Your task to perform on an android device: What's the weather going to be this weekend? Image 0: 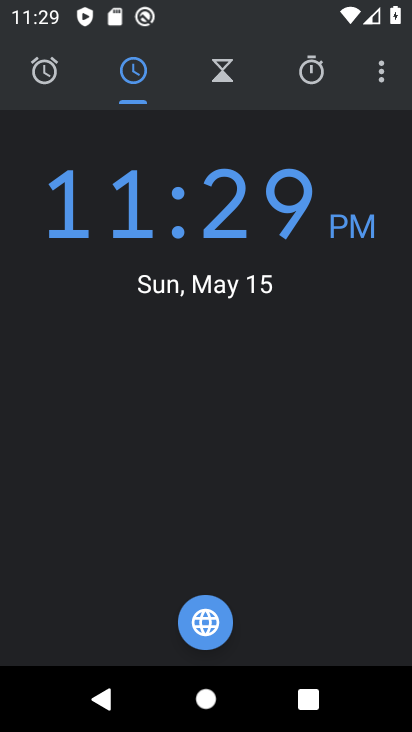
Step 0: press home button
Your task to perform on an android device: What's the weather going to be this weekend? Image 1: 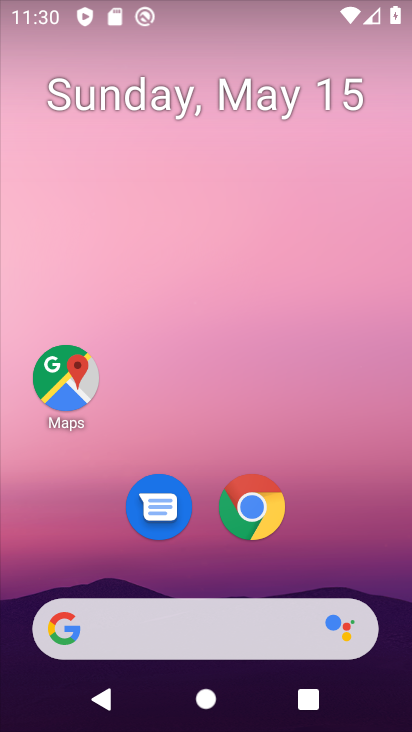
Step 1: click (244, 524)
Your task to perform on an android device: What's the weather going to be this weekend? Image 2: 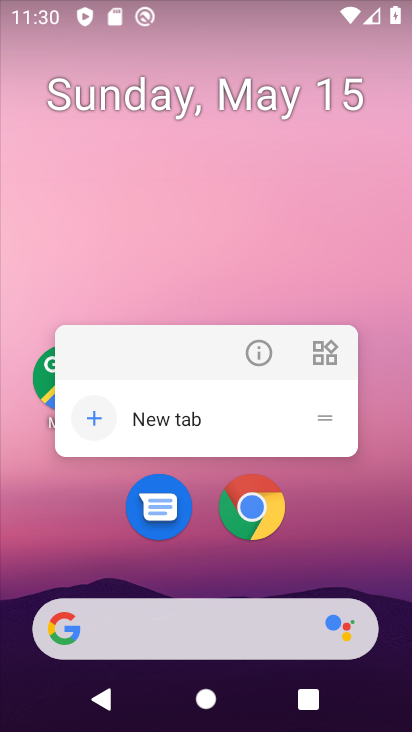
Step 2: click (257, 526)
Your task to perform on an android device: What's the weather going to be this weekend? Image 3: 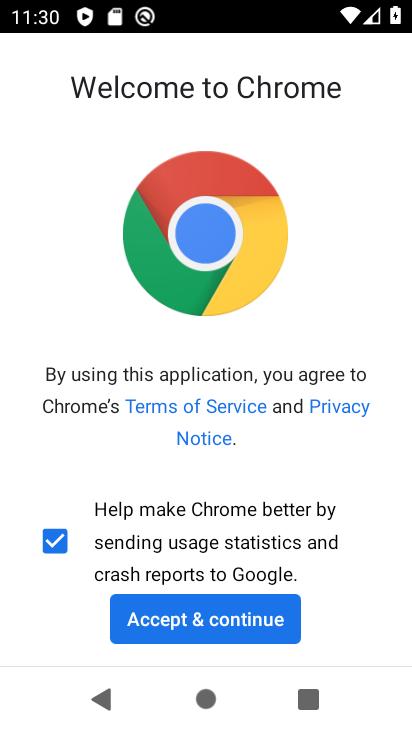
Step 3: click (243, 610)
Your task to perform on an android device: What's the weather going to be this weekend? Image 4: 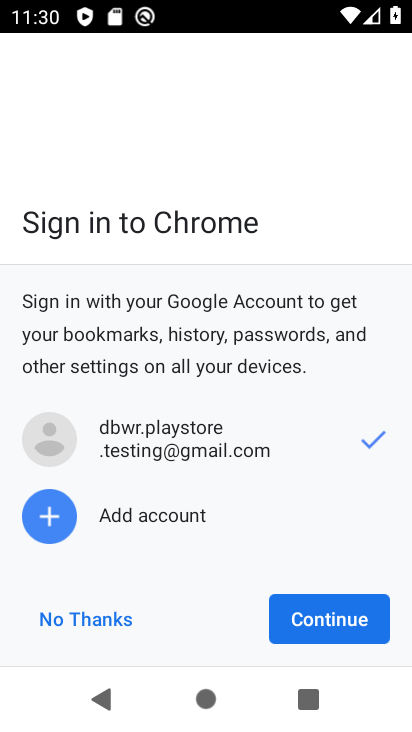
Step 4: click (323, 616)
Your task to perform on an android device: What's the weather going to be this weekend? Image 5: 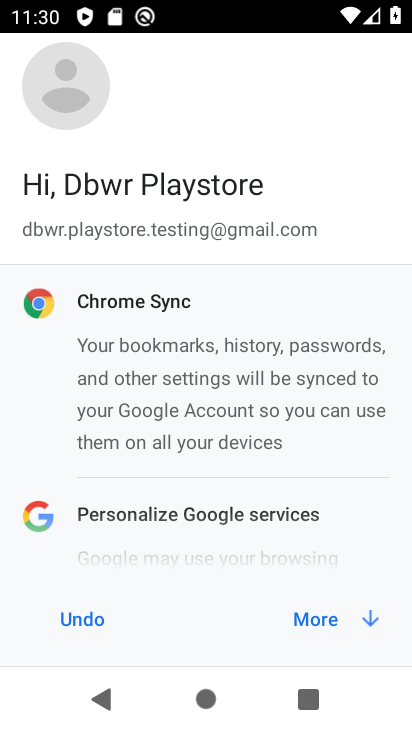
Step 5: click (327, 627)
Your task to perform on an android device: What's the weather going to be this weekend? Image 6: 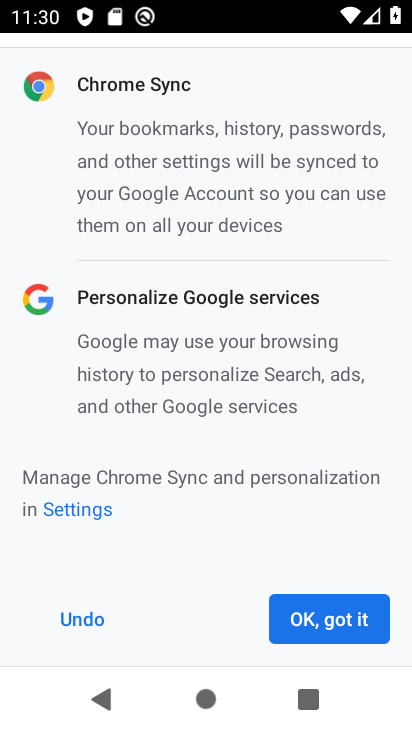
Step 6: click (327, 627)
Your task to perform on an android device: What's the weather going to be this weekend? Image 7: 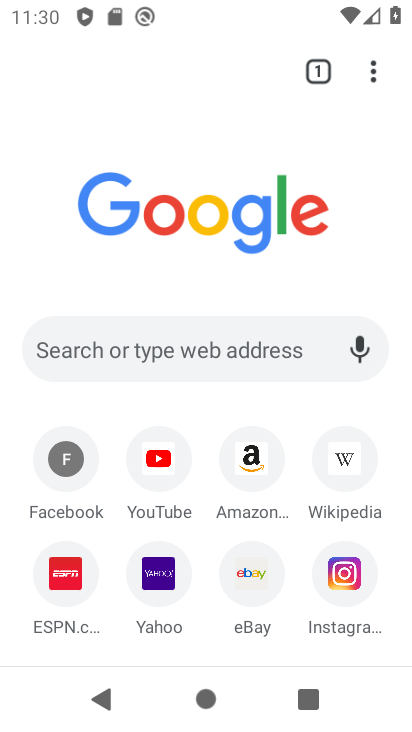
Step 7: click (191, 353)
Your task to perform on an android device: What's the weather going to be this weekend? Image 8: 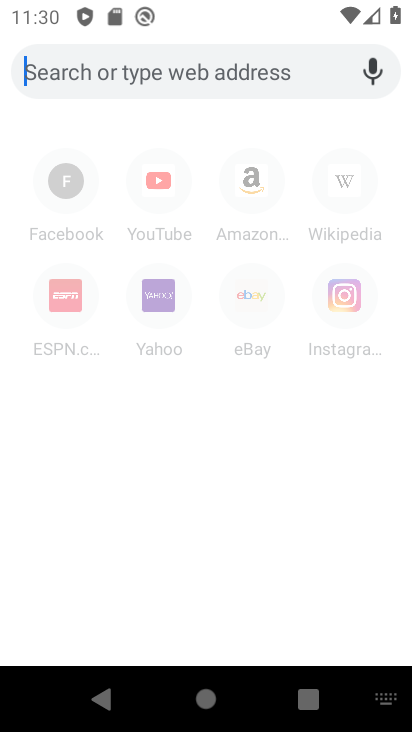
Step 8: type "whats the weather going to be this weekend"
Your task to perform on an android device: What's the weather going to be this weekend? Image 9: 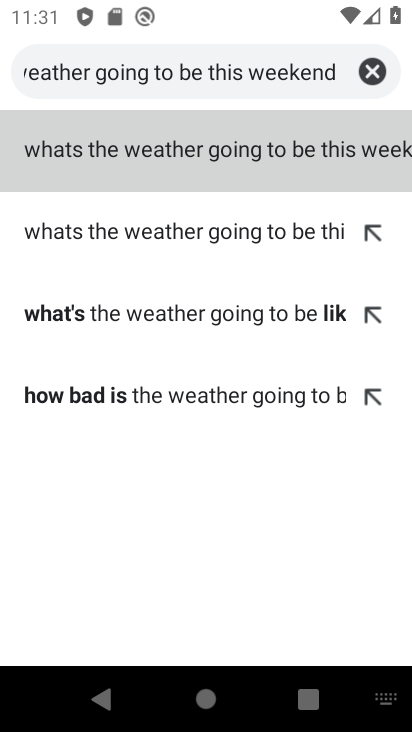
Step 9: click (176, 167)
Your task to perform on an android device: What's the weather going to be this weekend? Image 10: 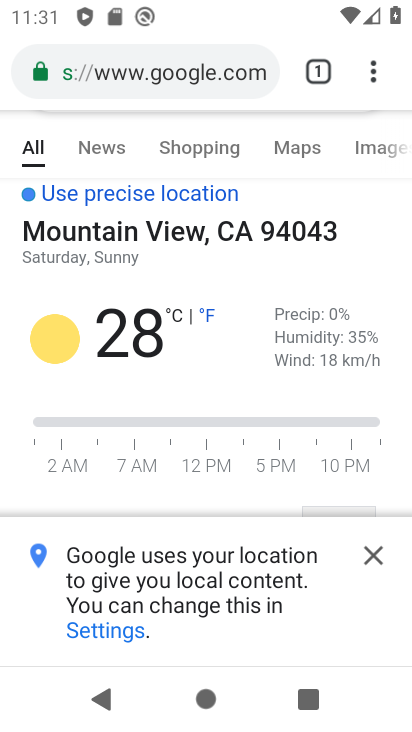
Step 10: task complete